Your task to perform on an android device: Go to privacy settings Image 0: 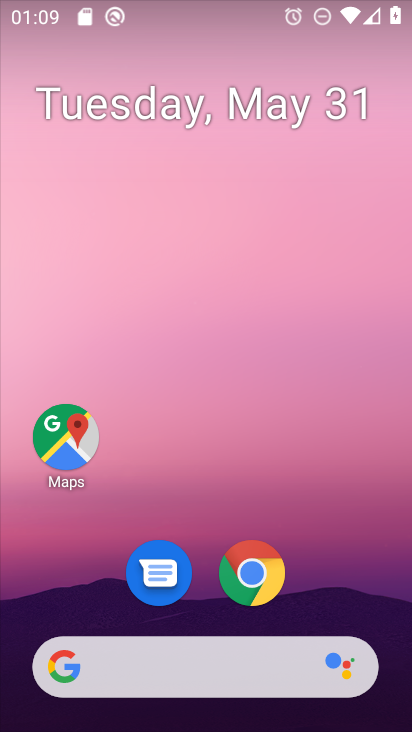
Step 0: drag from (261, 638) to (166, 23)
Your task to perform on an android device: Go to privacy settings Image 1: 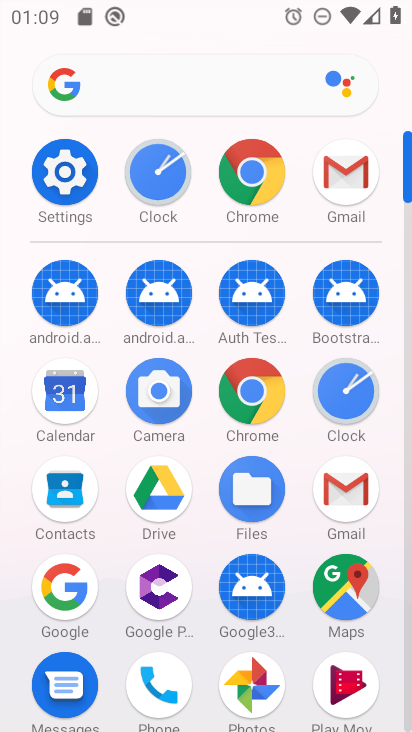
Step 1: click (46, 180)
Your task to perform on an android device: Go to privacy settings Image 2: 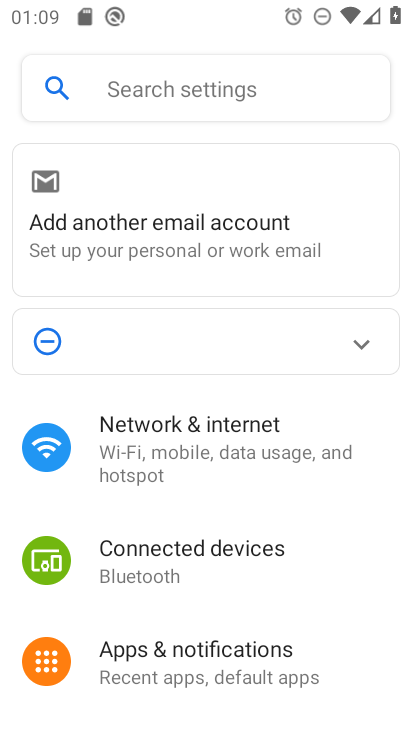
Step 2: drag from (224, 672) to (208, 78)
Your task to perform on an android device: Go to privacy settings Image 3: 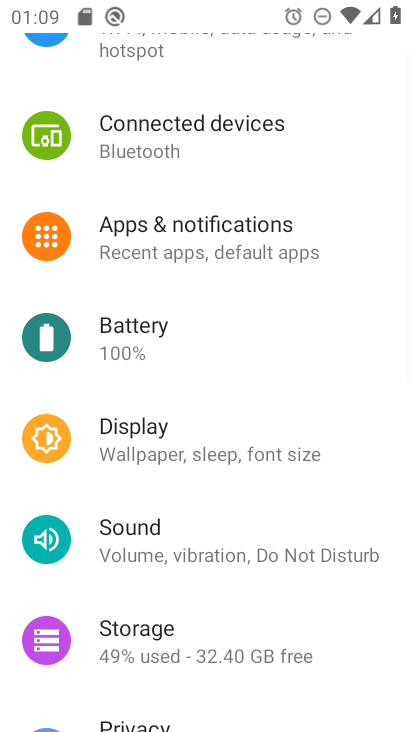
Step 3: drag from (233, 649) to (220, 0)
Your task to perform on an android device: Go to privacy settings Image 4: 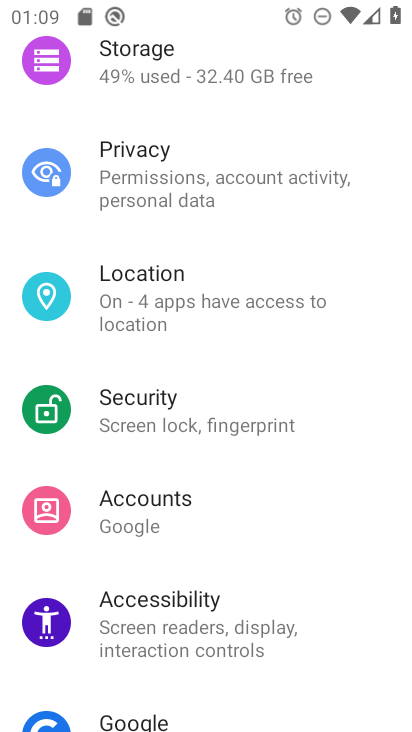
Step 4: click (213, 173)
Your task to perform on an android device: Go to privacy settings Image 5: 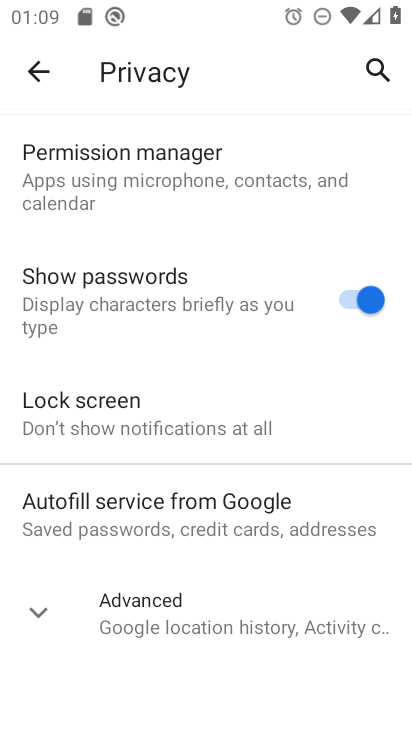
Step 5: task complete